Your task to perform on an android device: Open location settings Image 0: 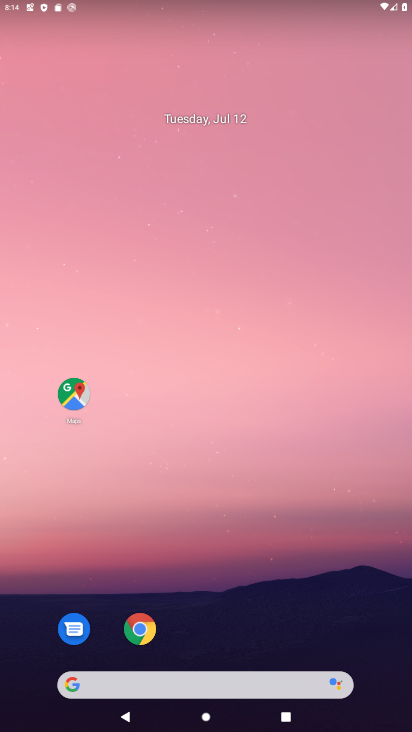
Step 0: drag from (216, 629) to (221, 383)
Your task to perform on an android device: Open location settings Image 1: 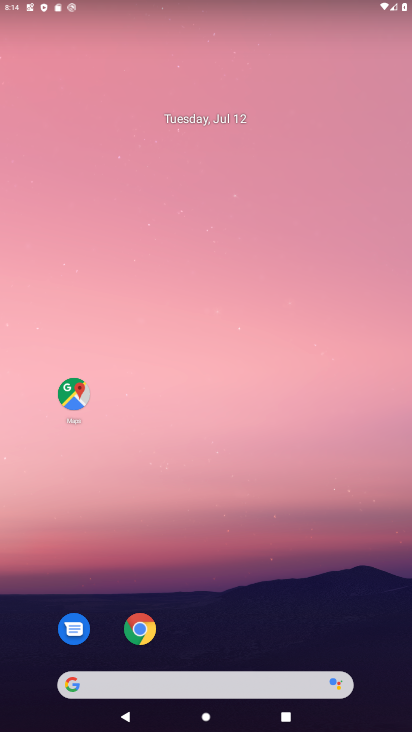
Step 1: drag from (230, 633) to (223, 131)
Your task to perform on an android device: Open location settings Image 2: 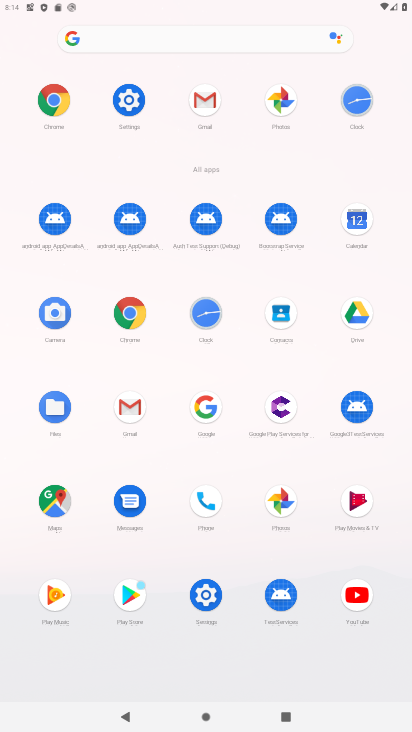
Step 2: click (137, 98)
Your task to perform on an android device: Open location settings Image 3: 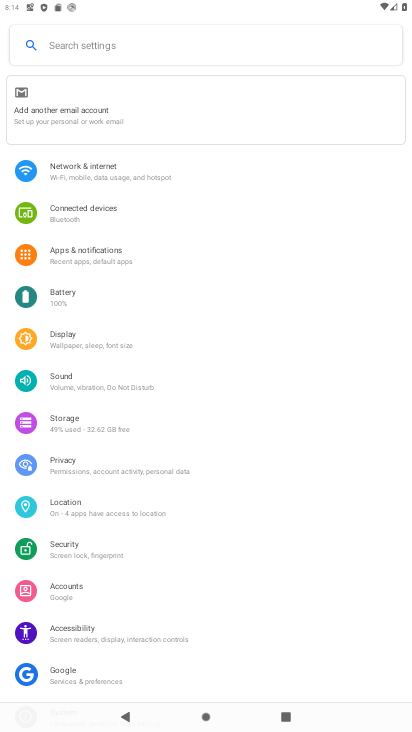
Step 3: click (99, 500)
Your task to perform on an android device: Open location settings Image 4: 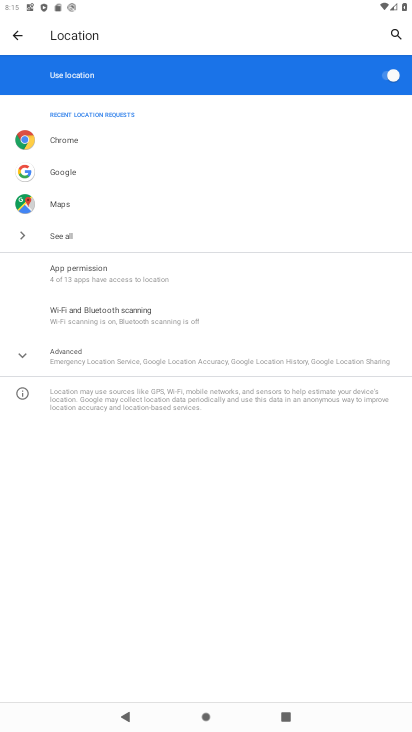
Step 4: task complete